Your task to perform on an android device: open wifi settings Image 0: 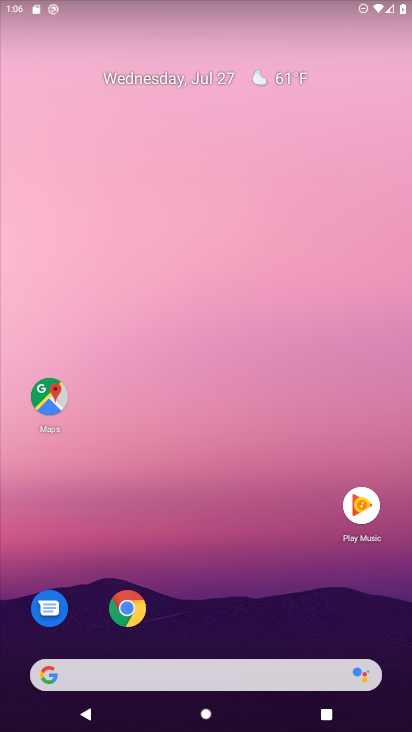
Step 0: drag from (325, 598) to (299, 175)
Your task to perform on an android device: open wifi settings Image 1: 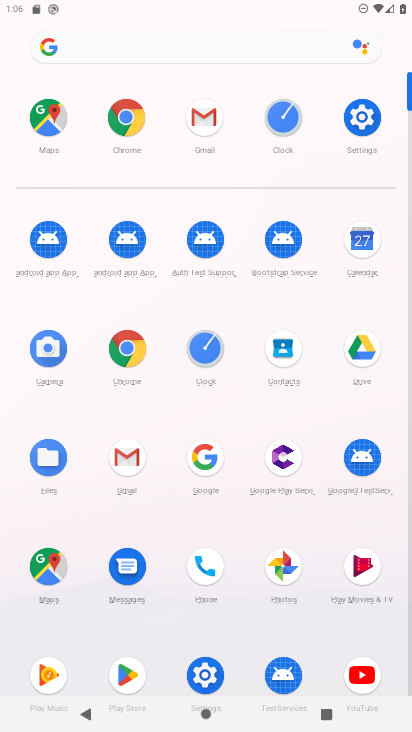
Step 1: click (360, 131)
Your task to perform on an android device: open wifi settings Image 2: 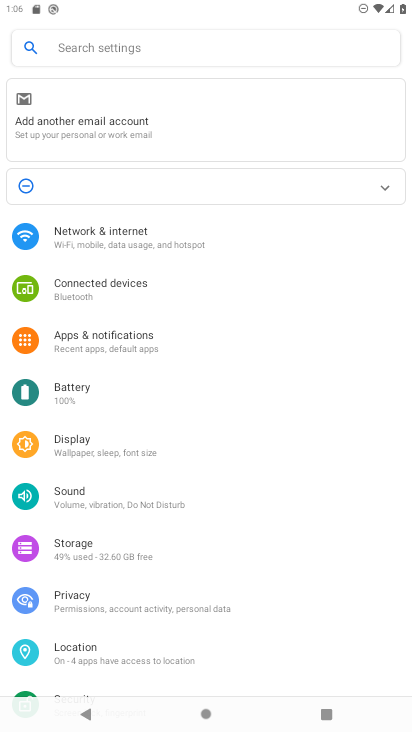
Step 2: drag from (333, 439) to (325, 329)
Your task to perform on an android device: open wifi settings Image 3: 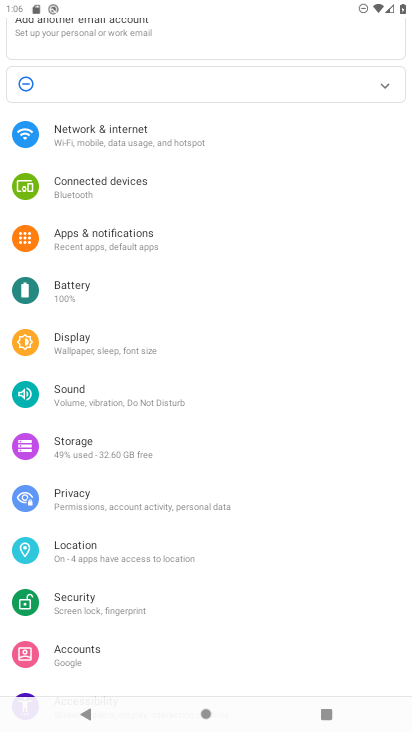
Step 3: drag from (315, 429) to (316, 365)
Your task to perform on an android device: open wifi settings Image 4: 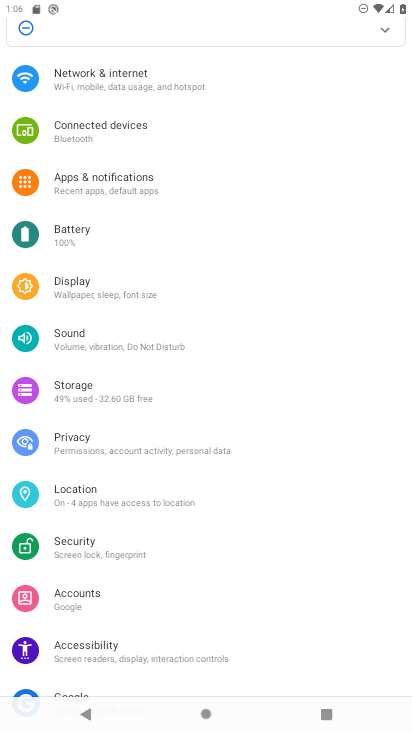
Step 4: drag from (311, 468) to (318, 407)
Your task to perform on an android device: open wifi settings Image 5: 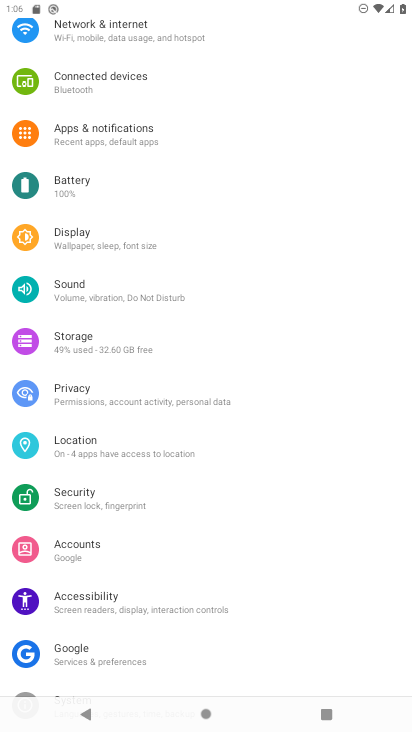
Step 5: drag from (308, 505) to (307, 449)
Your task to perform on an android device: open wifi settings Image 6: 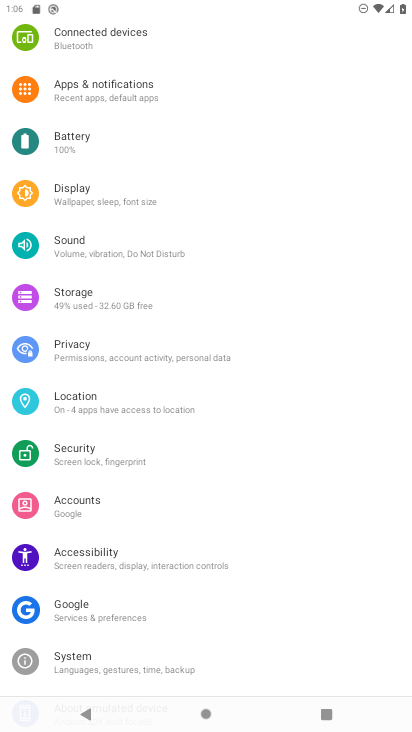
Step 6: drag from (302, 511) to (308, 444)
Your task to perform on an android device: open wifi settings Image 7: 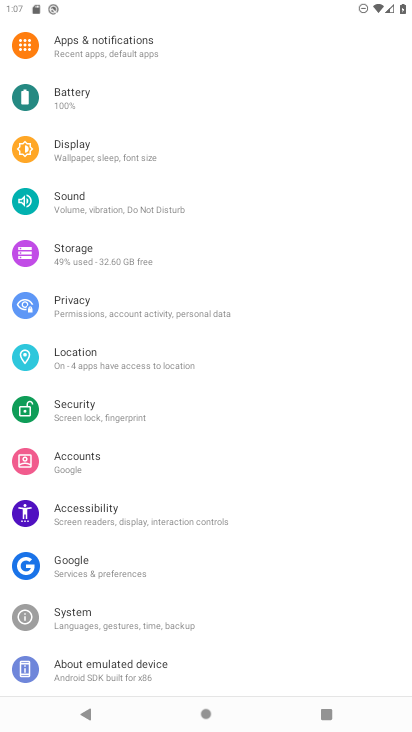
Step 7: drag from (292, 525) to (295, 424)
Your task to perform on an android device: open wifi settings Image 8: 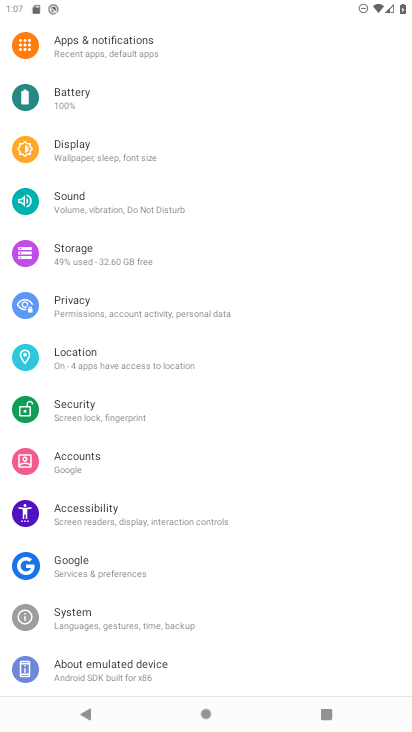
Step 8: drag from (305, 266) to (304, 313)
Your task to perform on an android device: open wifi settings Image 9: 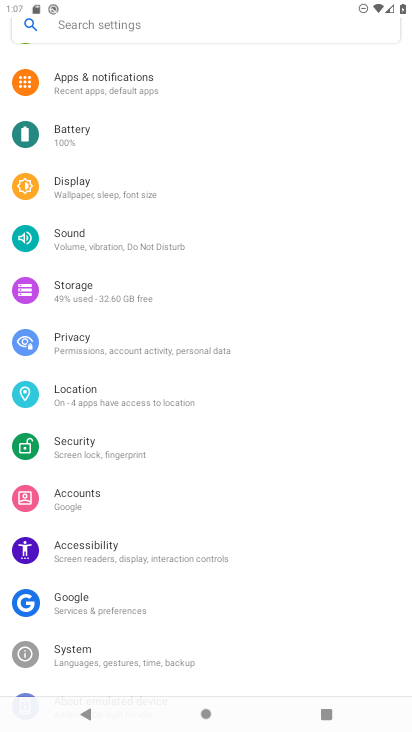
Step 9: drag from (304, 267) to (304, 336)
Your task to perform on an android device: open wifi settings Image 10: 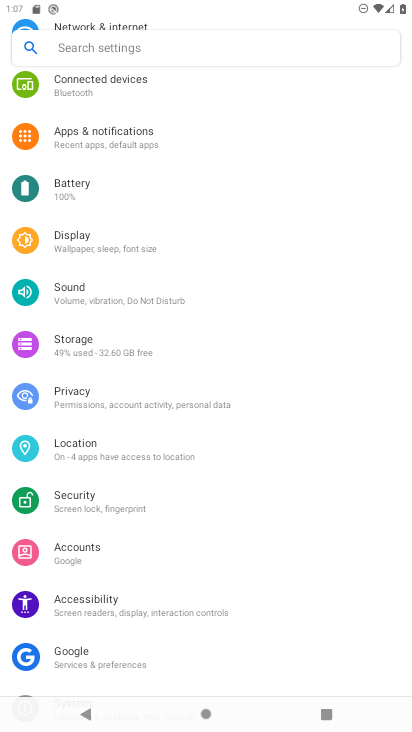
Step 10: drag from (311, 276) to (309, 342)
Your task to perform on an android device: open wifi settings Image 11: 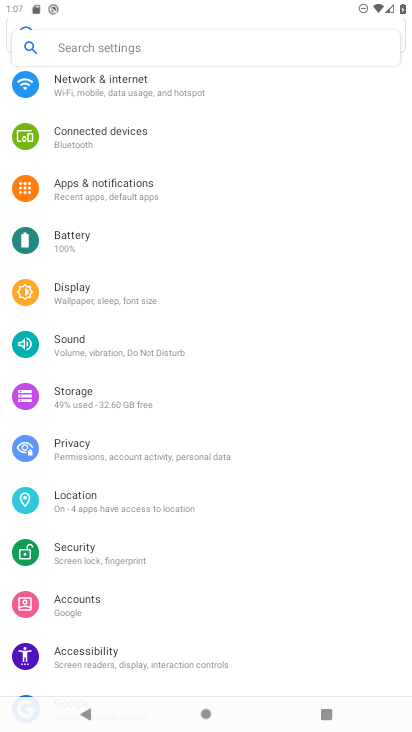
Step 11: drag from (320, 242) to (324, 348)
Your task to perform on an android device: open wifi settings Image 12: 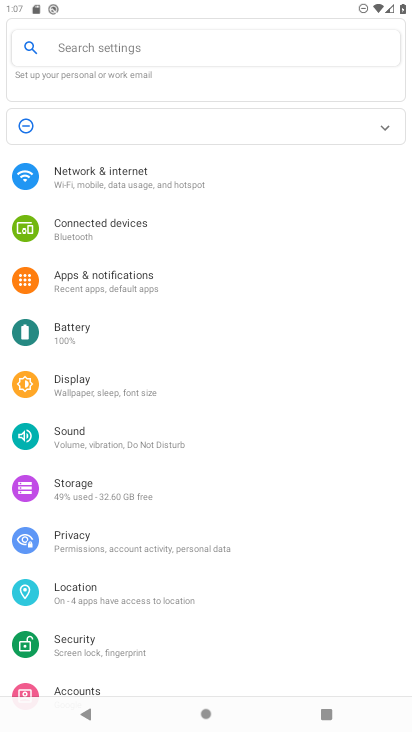
Step 12: drag from (324, 279) to (315, 389)
Your task to perform on an android device: open wifi settings Image 13: 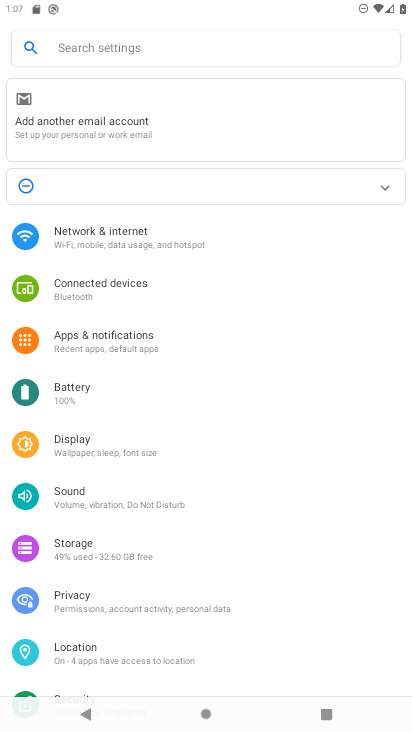
Step 13: drag from (314, 288) to (312, 395)
Your task to perform on an android device: open wifi settings Image 14: 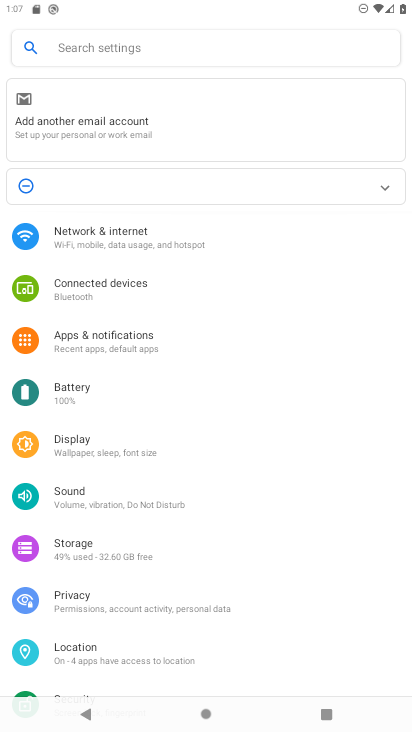
Step 14: click (245, 247)
Your task to perform on an android device: open wifi settings Image 15: 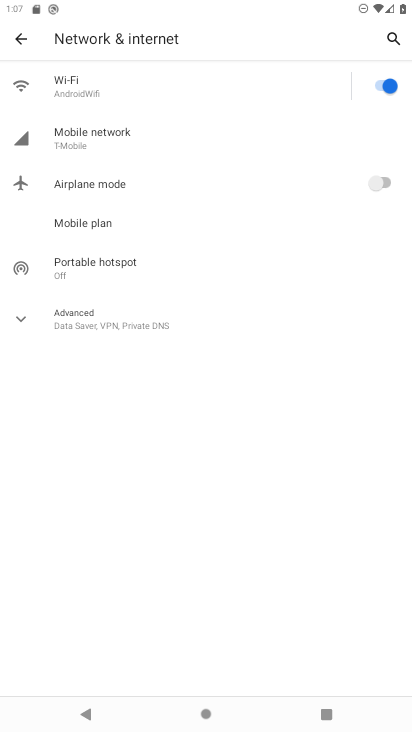
Step 15: click (130, 92)
Your task to perform on an android device: open wifi settings Image 16: 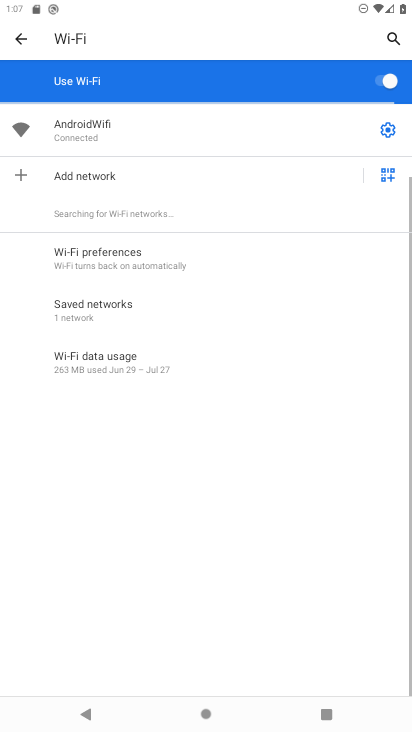
Step 16: task complete